Your task to perform on an android device: Open Google Maps Image 0: 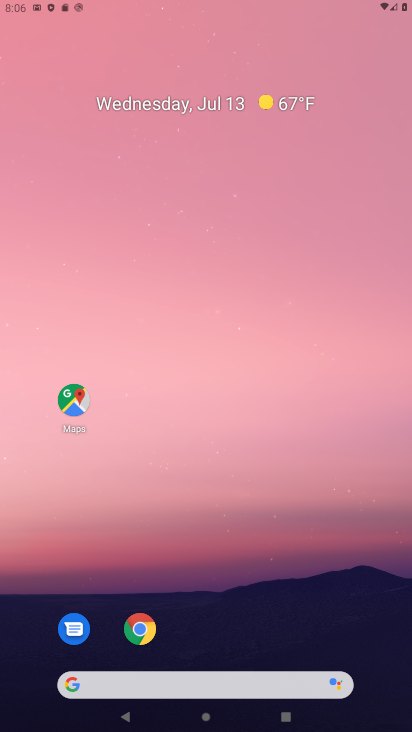
Step 0: press home button
Your task to perform on an android device: Open Google Maps Image 1: 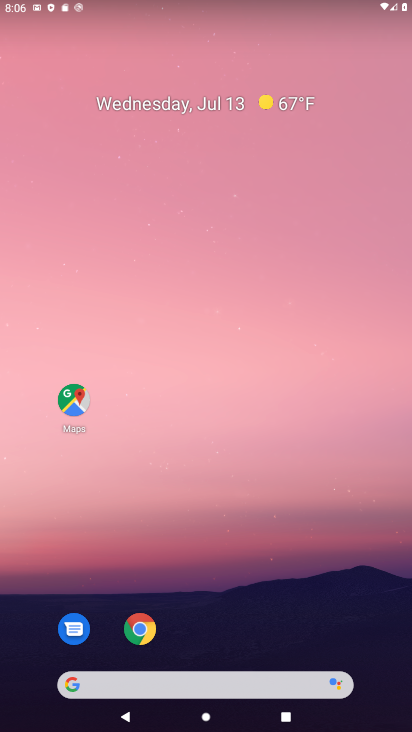
Step 1: drag from (216, 616) to (230, 76)
Your task to perform on an android device: Open Google Maps Image 2: 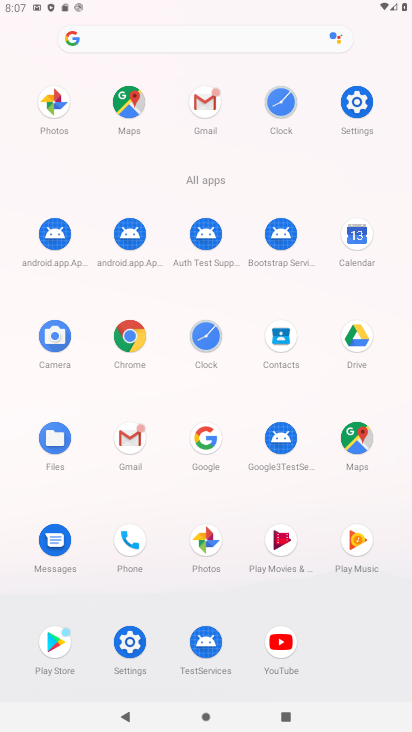
Step 2: click (356, 456)
Your task to perform on an android device: Open Google Maps Image 3: 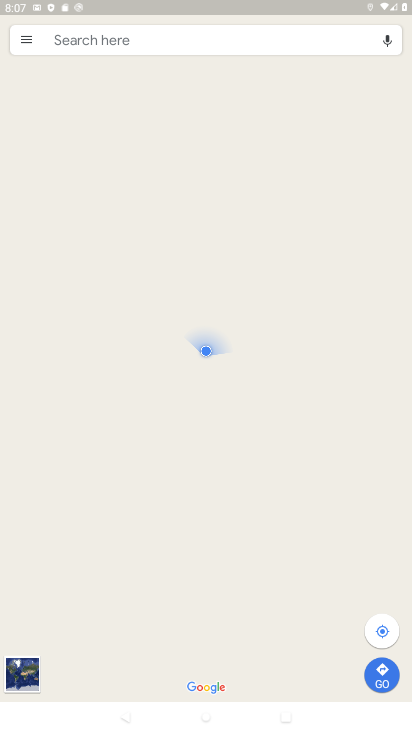
Step 3: task complete